Your task to perform on an android device: turn on the 24-hour format for clock Image 0: 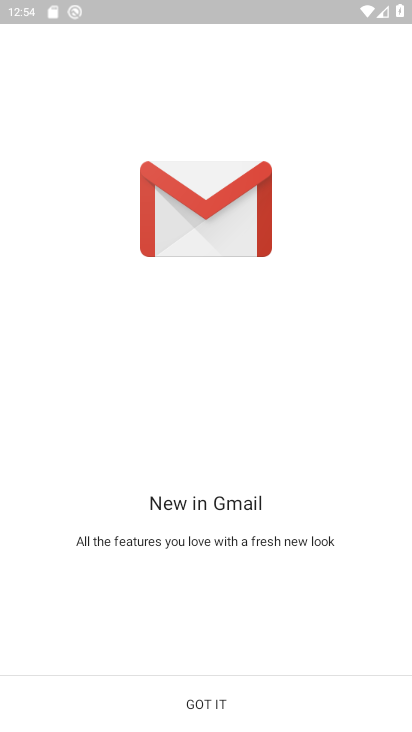
Step 0: press home button
Your task to perform on an android device: turn on the 24-hour format for clock Image 1: 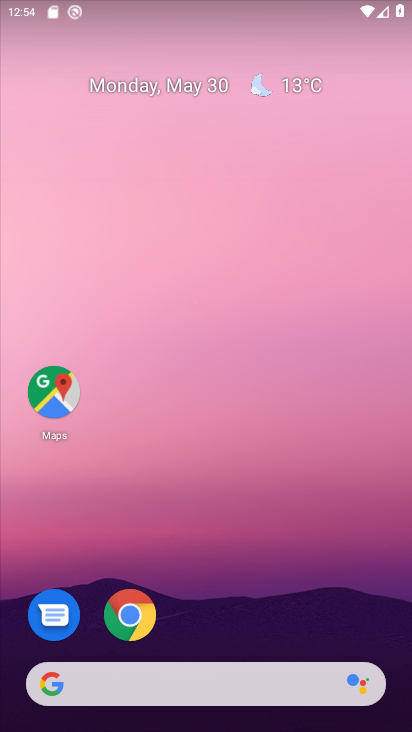
Step 1: drag from (197, 652) to (300, 9)
Your task to perform on an android device: turn on the 24-hour format for clock Image 2: 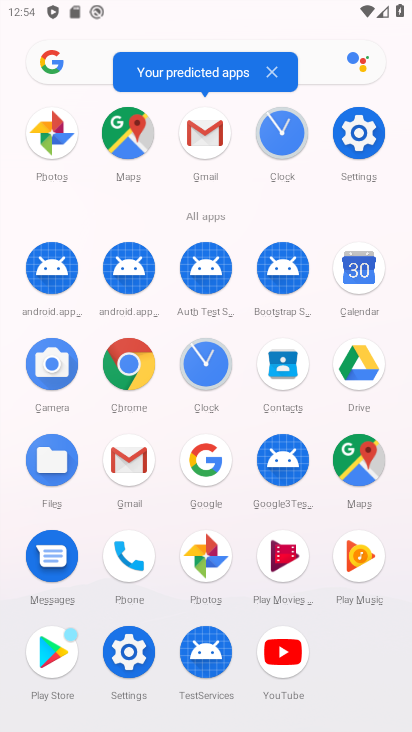
Step 2: click (202, 367)
Your task to perform on an android device: turn on the 24-hour format for clock Image 3: 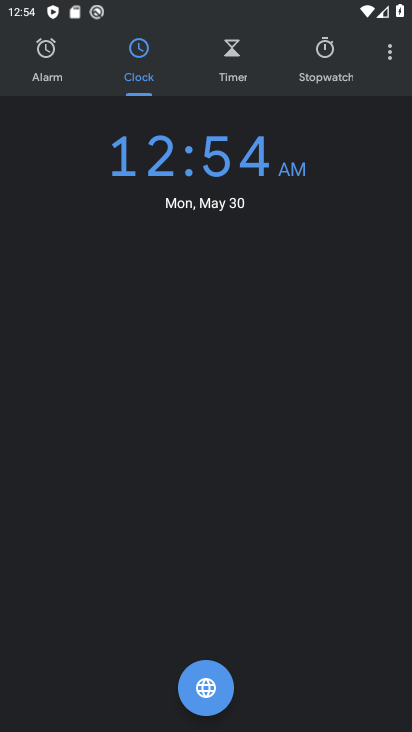
Step 3: click (393, 64)
Your task to perform on an android device: turn on the 24-hour format for clock Image 4: 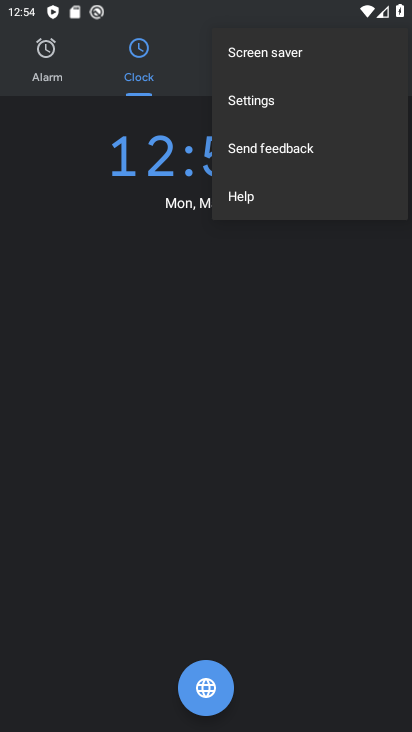
Step 4: click (267, 102)
Your task to perform on an android device: turn on the 24-hour format for clock Image 5: 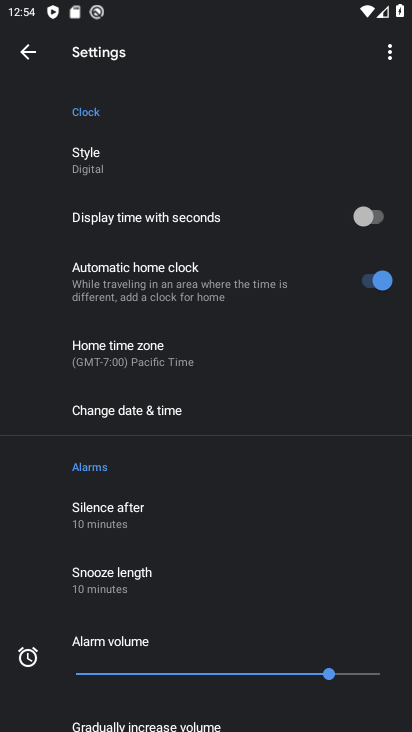
Step 5: click (151, 408)
Your task to perform on an android device: turn on the 24-hour format for clock Image 6: 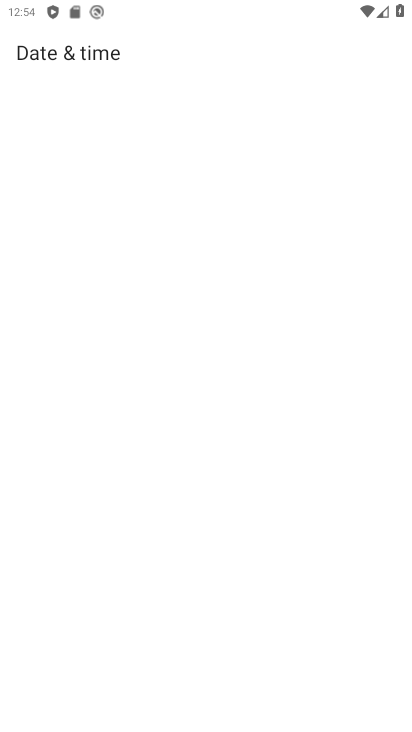
Step 6: drag from (181, 561) to (161, 143)
Your task to perform on an android device: turn on the 24-hour format for clock Image 7: 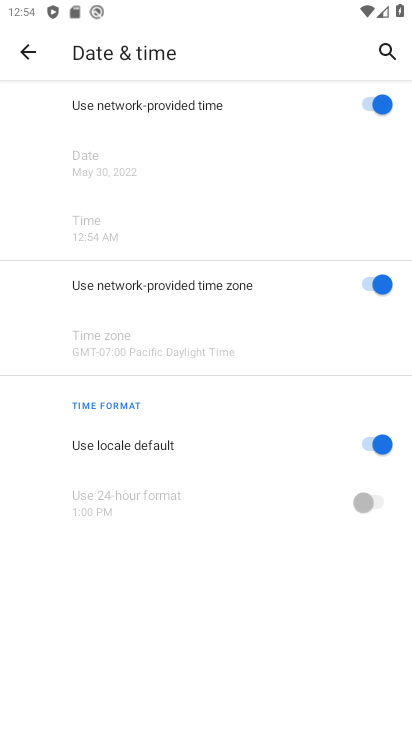
Step 7: click (378, 451)
Your task to perform on an android device: turn on the 24-hour format for clock Image 8: 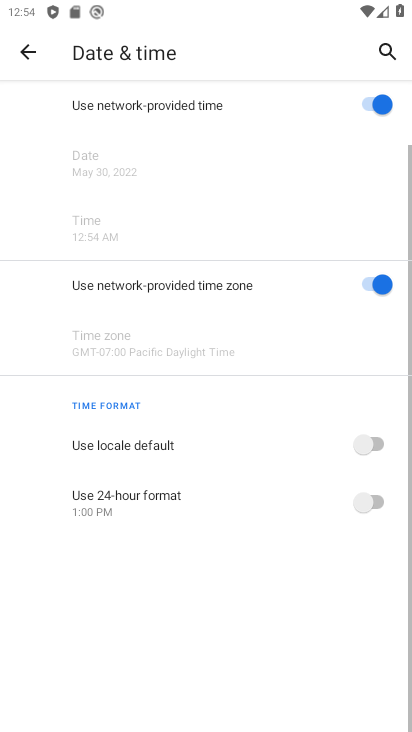
Step 8: click (374, 493)
Your task to perform on an android device: turn on the 24-hour format for clock Image 9: 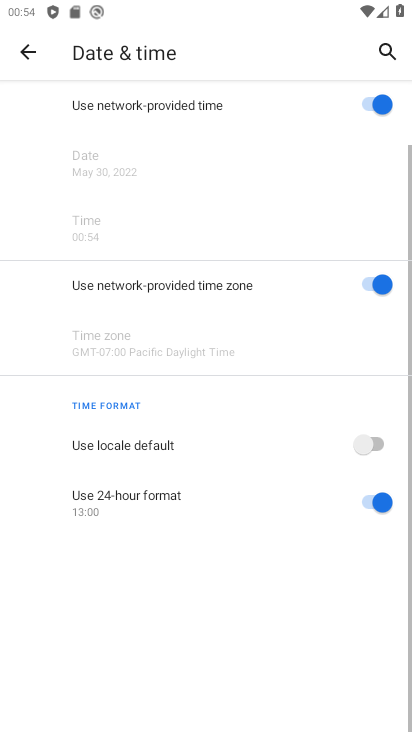
Step 9: task complete